Your task to perform on an android device: Open internet settings Image 0: 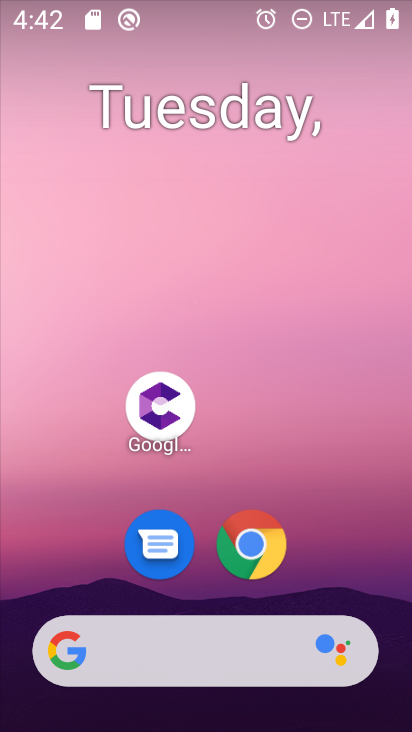
Step 0: drag from (377, 582) to (368, 198)
Your task to perform on an android device: Open internet settings Image 1: 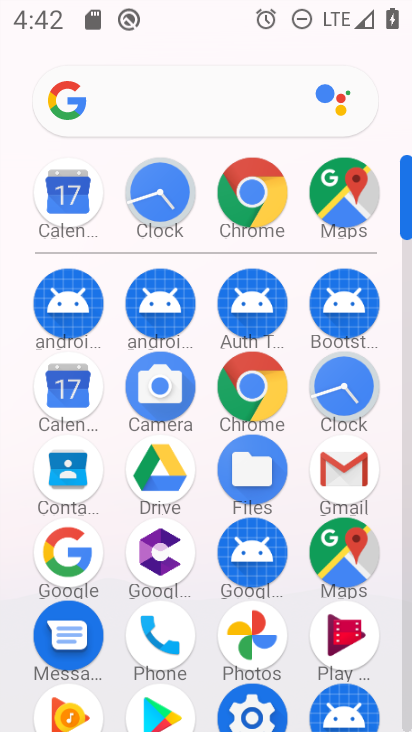
Step 1: click (256, 707)
Your task to perform on an android device: Open internet settings Image 2: 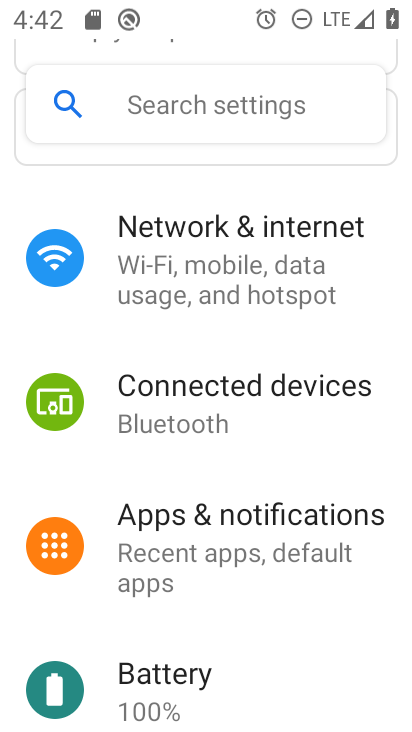
Step 2: click (265, 255)
Your task to perform on an android device: Open internet settings Image 3: 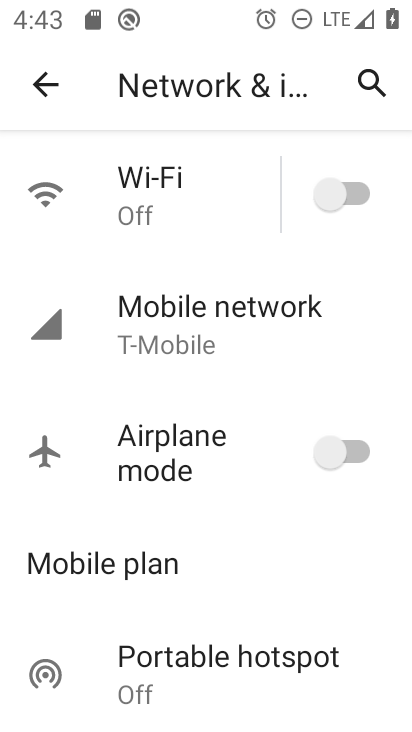
Step 3: task complete